Your task to perform on an android device: Go to CNN.com Image 0: 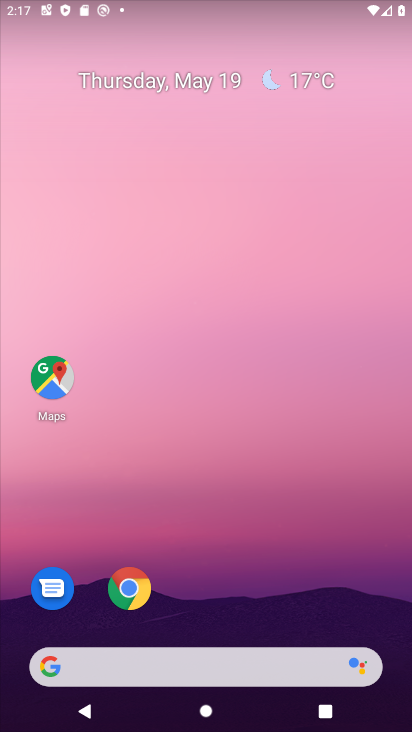
Step 0: click (137, 594)
Your task to perform on an android device: Go to CNN.com Image 1: 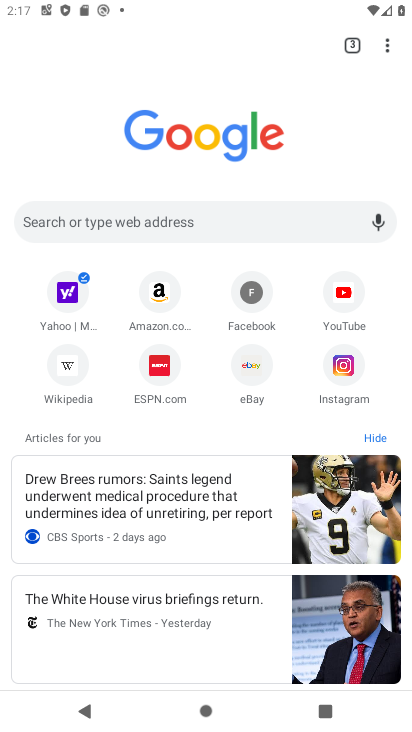
Step 1: click (246, 214)
Your task to perform on an android device: Go to CNN.com Image 2: 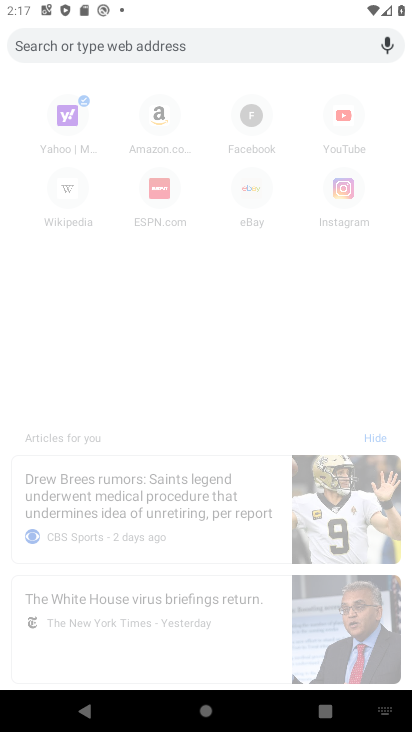
Step 2: type "cnn.com"
Your task to perform on an android device: Go to CNN.com Image 3: 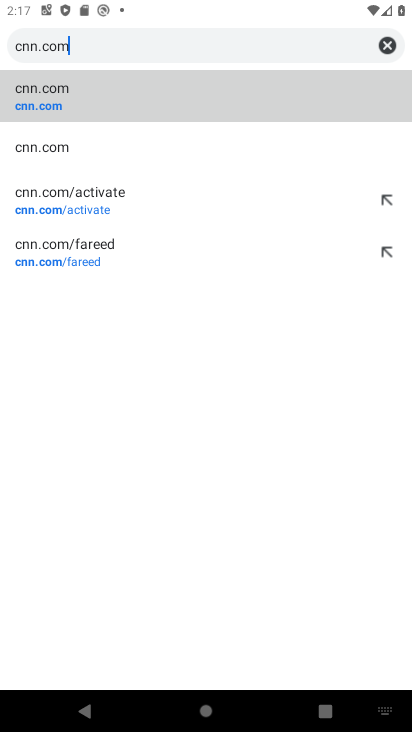
Step 3: click (33, 98)
Your task to perform on an android device: Go to CNN.com Image 4: 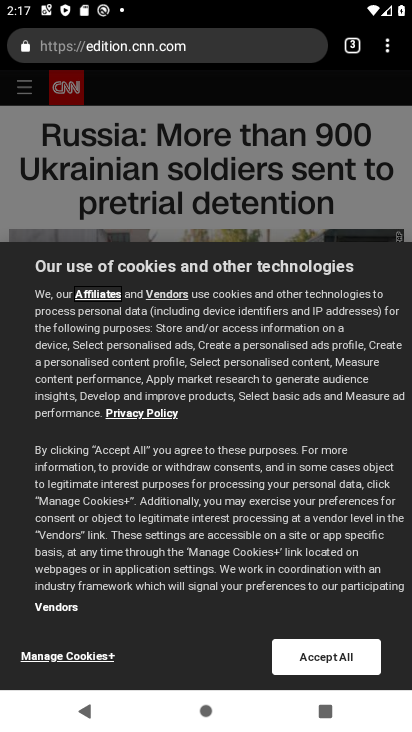
Step 4: task complete